Your task to perform on an android device: Set the phone to "Do not disturb". Image 0: 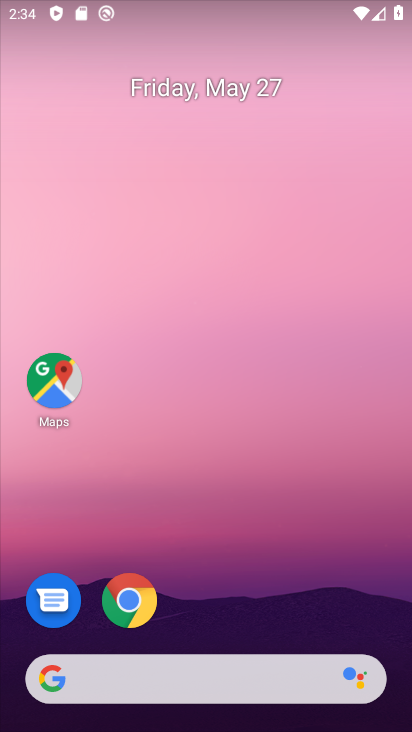
Step 0: drag from (209, 725) to (209, 164)
Your task to perform on an android device: Set the phone to "Do not disturb". Image 1: 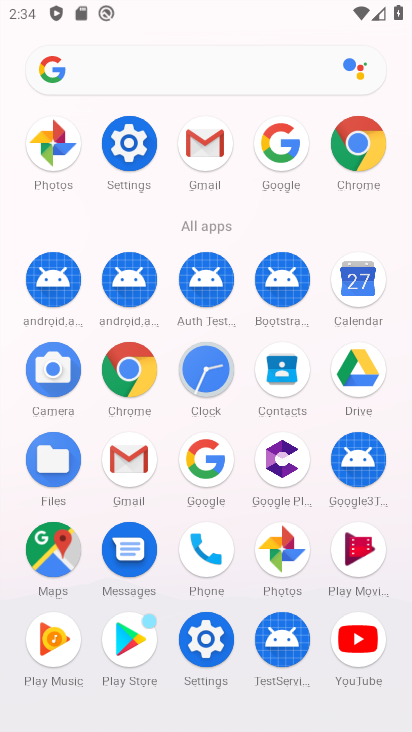
Step 1: click (132, 148)
Your task to perform on an android device: Set the phone to "Do not disturb". Image 2: 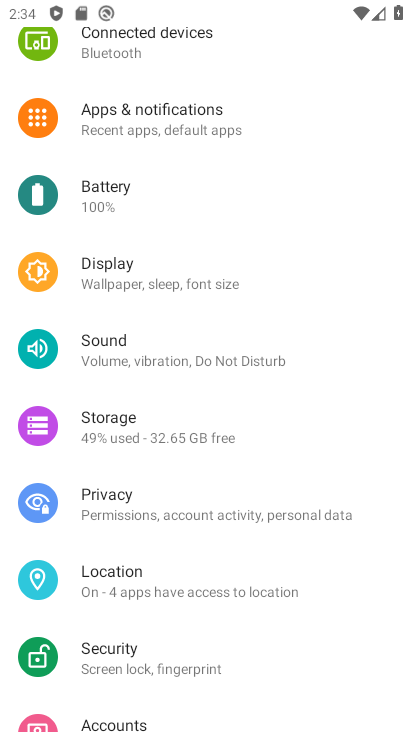
Step 2: click (187, 358)
Your task to perform on an android device: Set the phone to "Do not disturb". Image 3: 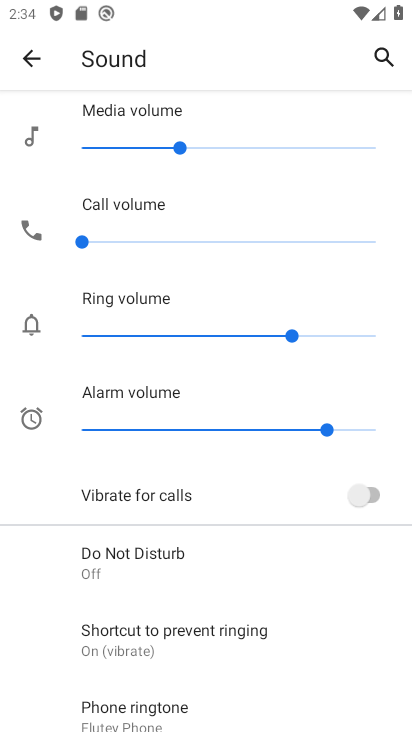
Step 3: click (158, 557)
Your task to perform on an android device: Set the phone to "Do not disturb". Image 4: 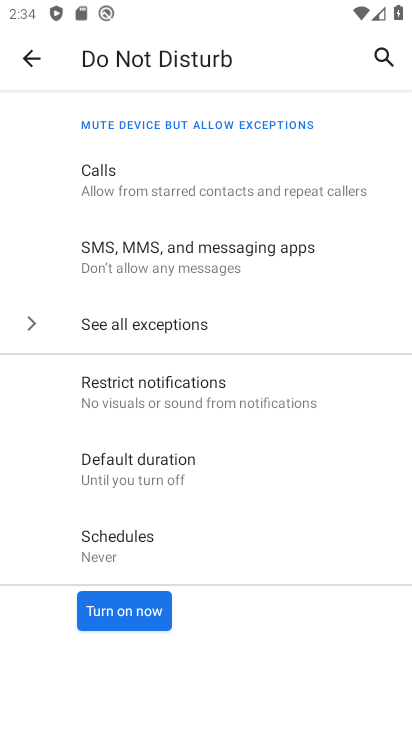
Step 4: click (116, 620)
Your task to perform on an android device: Set the phone to "Do not disturb". Image 5: 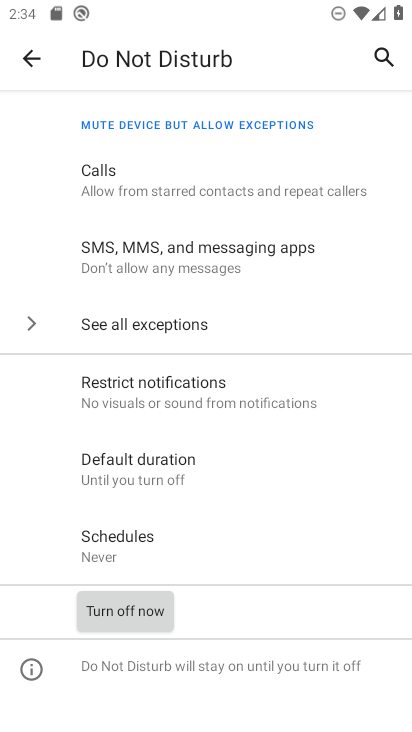
Step 5: task complete